Your task to perform on an android device: What's the weather today? Image 0: 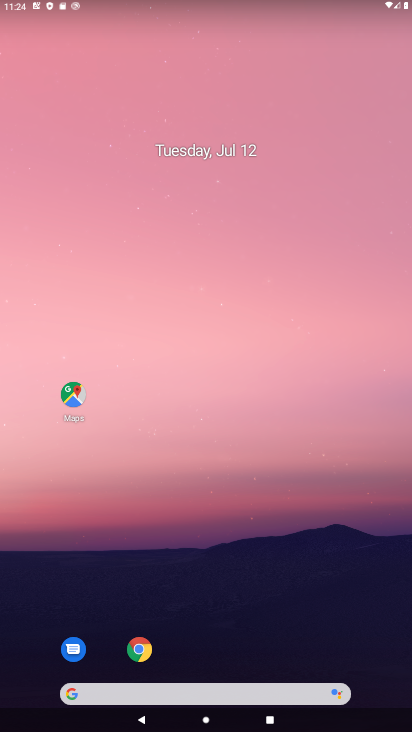
Step 0: drag from (15, 216) to (362, 268)
Your task to perform on an android device: What's the weather today? Image 1: 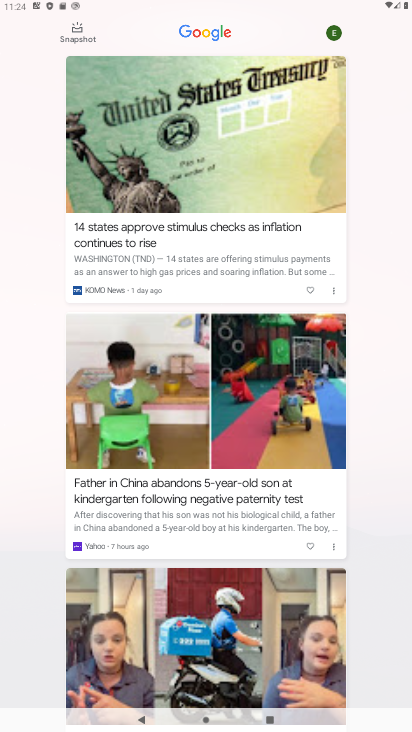
Step 1: drag from (402, 341) to (14, 277)
Your task to perform on an android device: What's the weather today? Image 2: 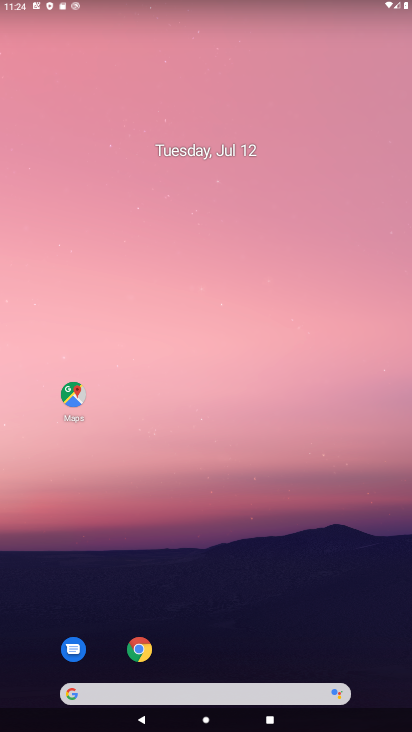
Step 2: click (143, 690)
Your task to perform on an android device: What's the weather today? Image 3: 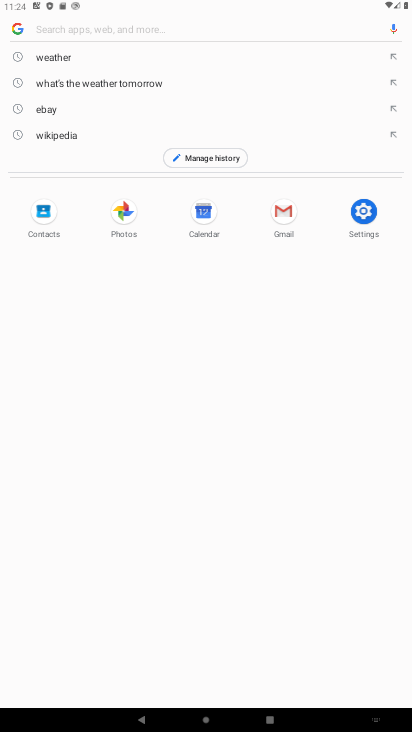
Step 3: click (54, 52)
Your task to perform on an android device: What's the weather today? Image 4: 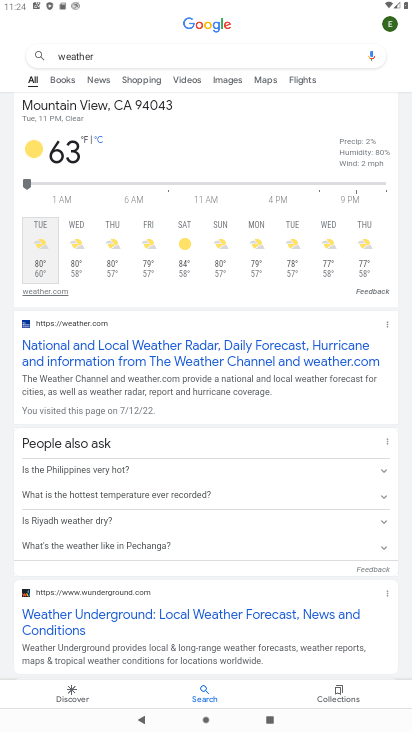
Step 4: task complete